Your task to perform on an android device: Open Amazon Image 0: 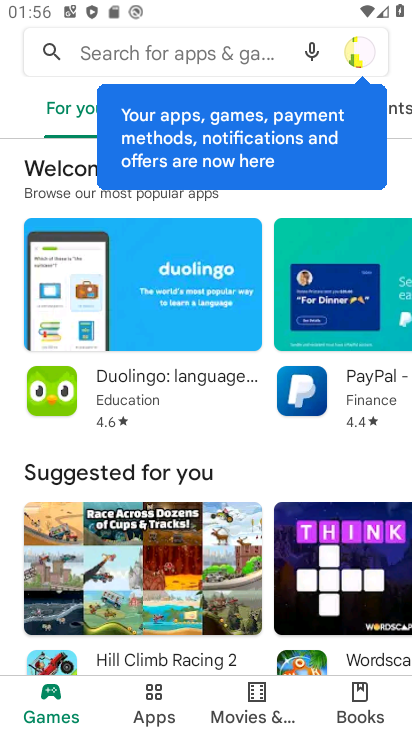
Step 0: press home button
Your task to perform on an android device: Open Amazon Image 1: 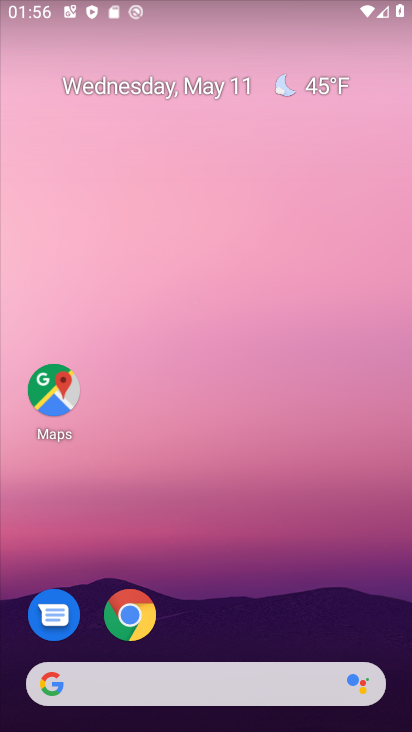
Step 1: drag from (360, 570) to (331, 179)
Your task to perform on an android device: Open Amazon Image 2: 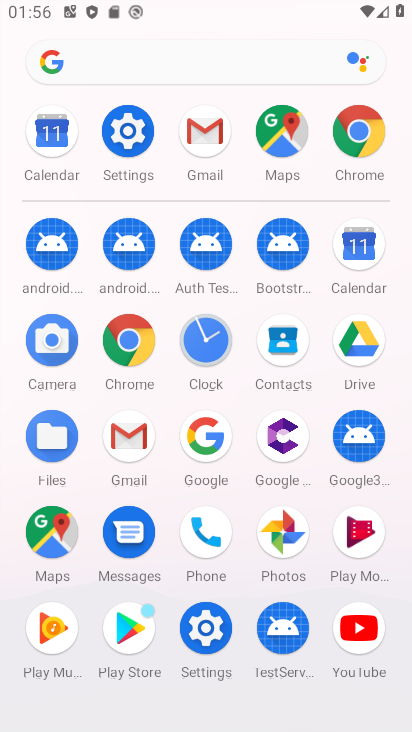
Step 2: click (139, 352)
Your task to perform on an android device: Open Amazon Image 3: 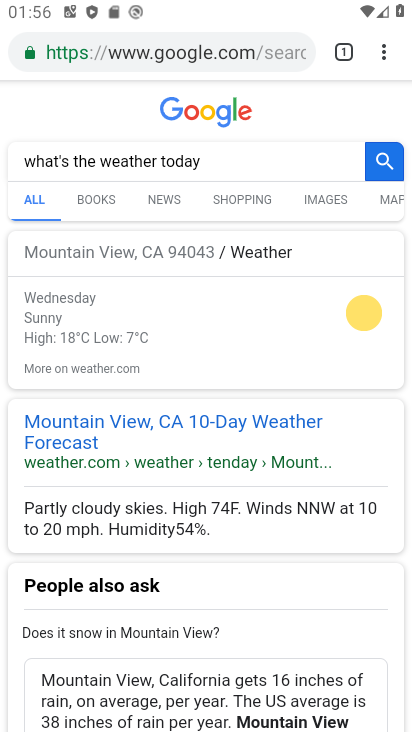
Step 3: click (338, 55)
Your task to perform on an android device: Open Amazon Image 4: 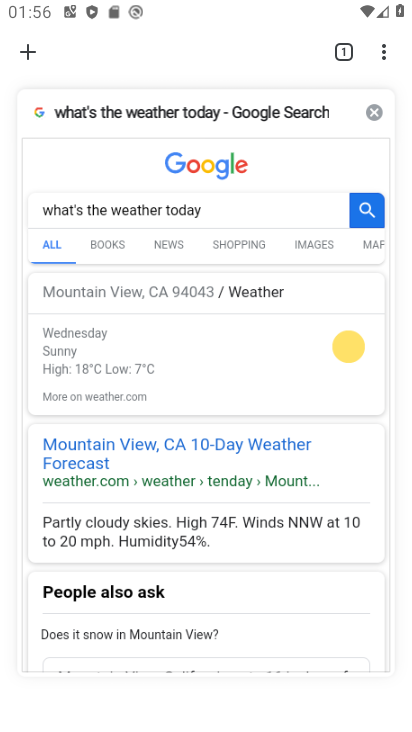
Step 4: click (28, 57)
Your task to perform on an android device: Open Amazon Image 5: 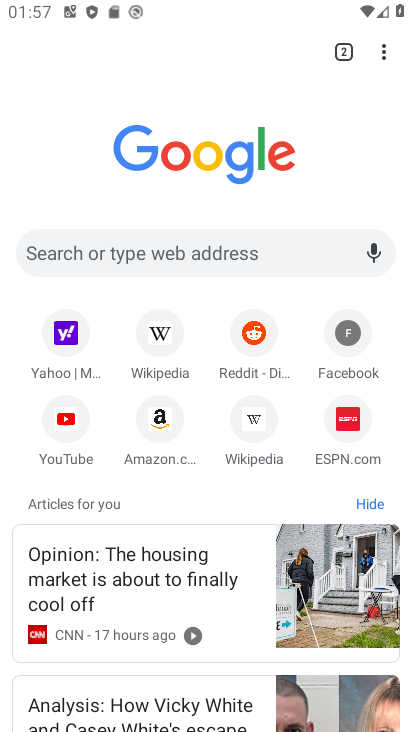
Step 5: click (169, 432)
Your task to perform on an android device: Open Amazon Image 6: 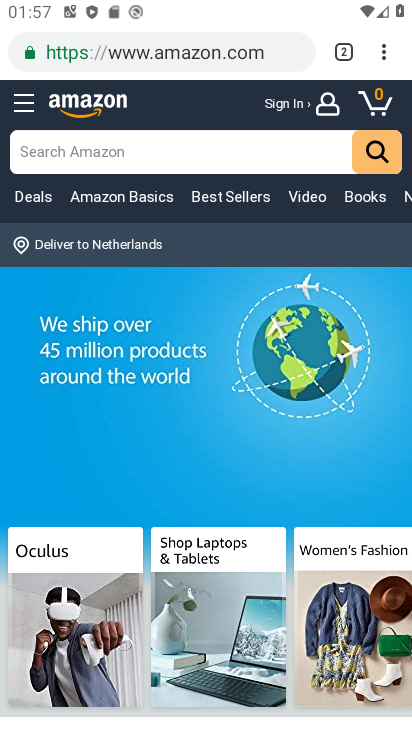
Step 6: task complete